Your task to perform on an android device: Search for desk lamps on article.com Image 0: 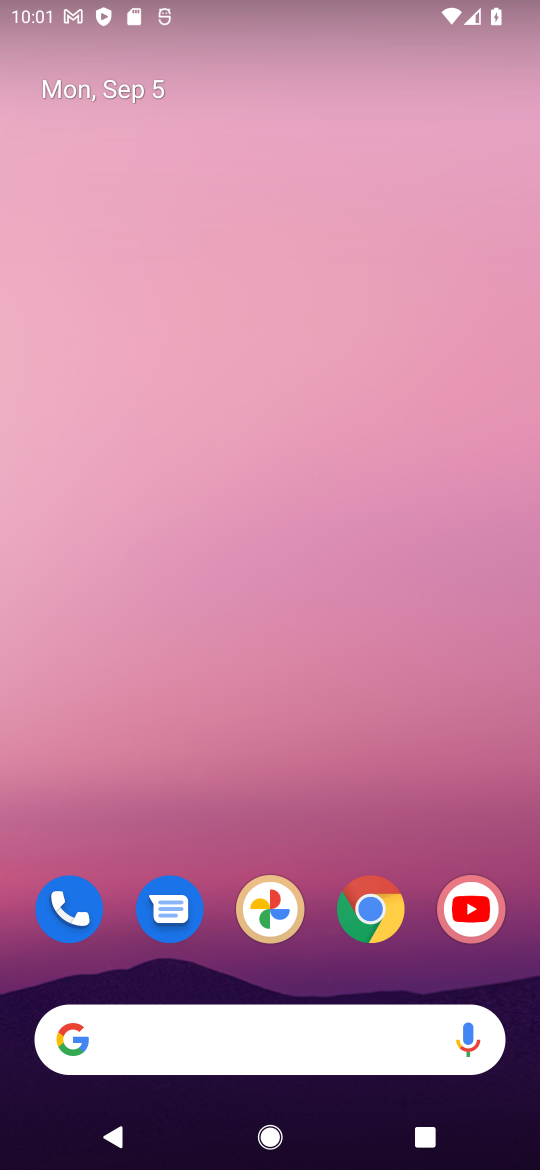
Step 0: click (380, 929)
Your task to perform on an android device: Search for desk lamps on article.com Image 1: 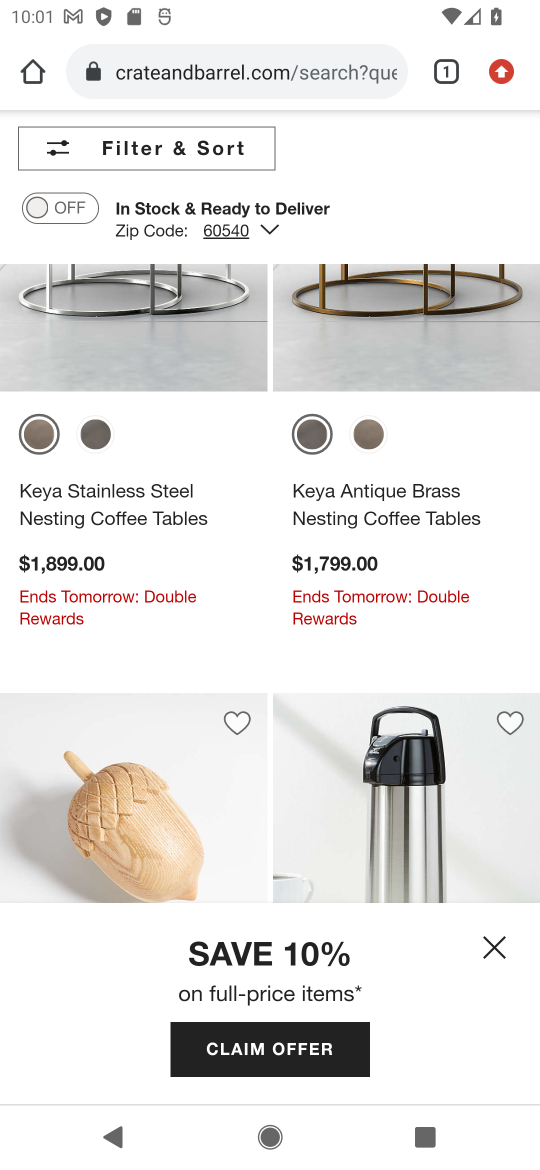
Step 1: click (269, 73)
Your task to perform on an android device: Search for desk lamps on article.com Image 2: 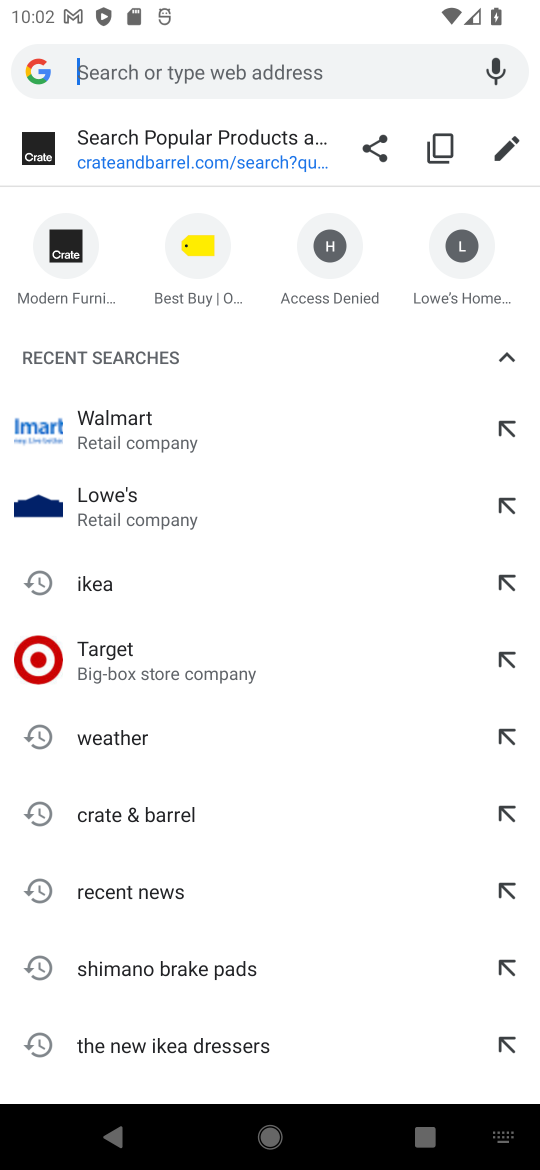
Step 2: type "article.com"
Your task to perform on an android device: Search for desk lamps on article.com Image 3: 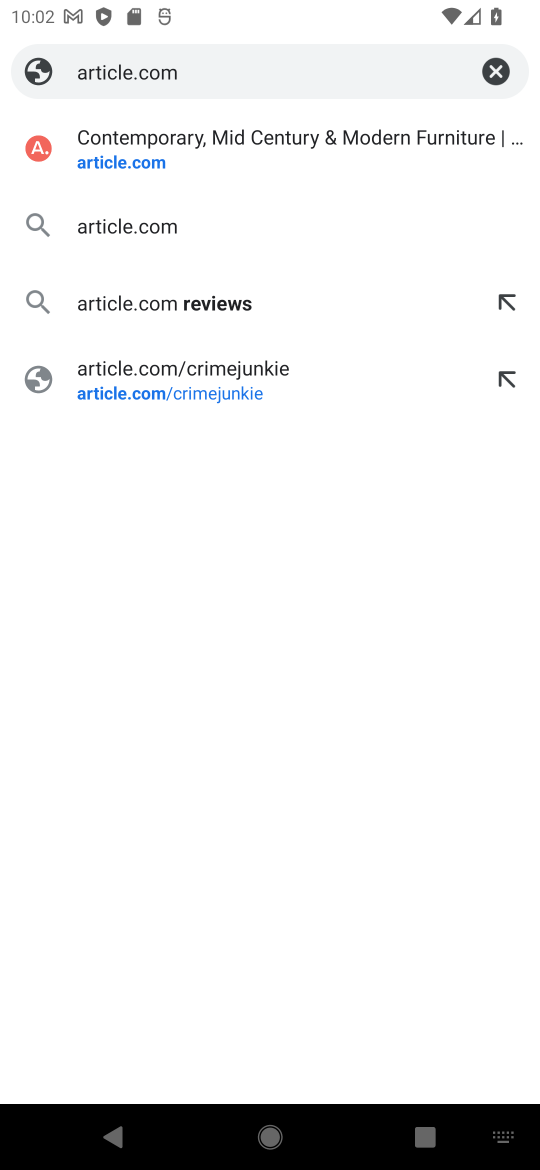
Step 3: click (312, 135)
Your task to perform on an android device: Search for desk lamps on article.com Image 4: 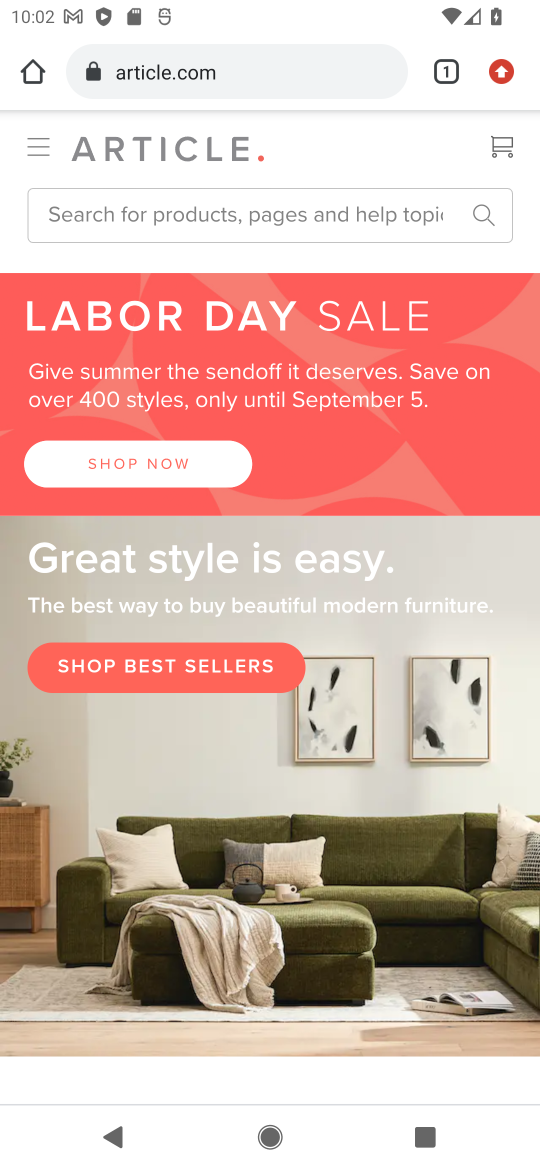
Step 4: click (285, 207)
Your task to perform on an android device: Search for desk lamps on article.com Image 5: 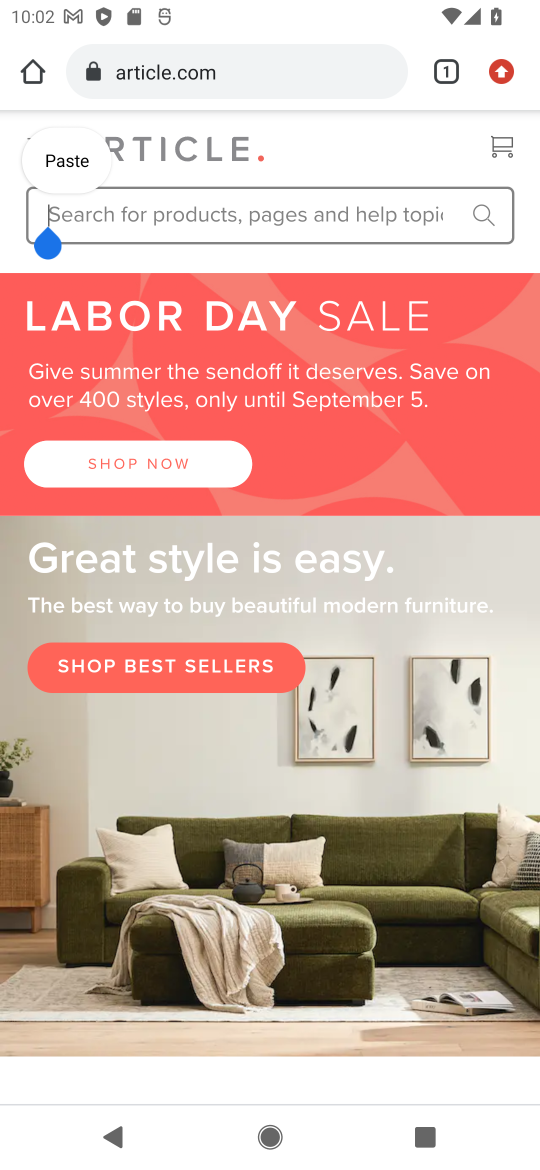
Step 5: click (160, 216)
Your task to perform on an android device: Search for desk lamps on article.com Image 6: 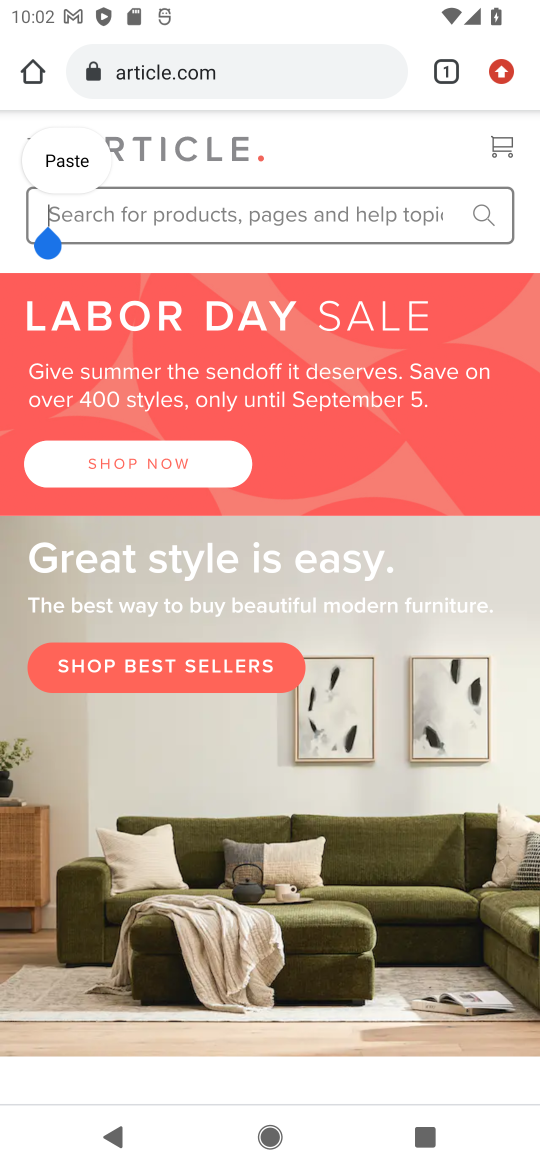
Step 6: type "desk lamps"
Your task to perform on an android device: Search for desk lamps on article.com Image 7: 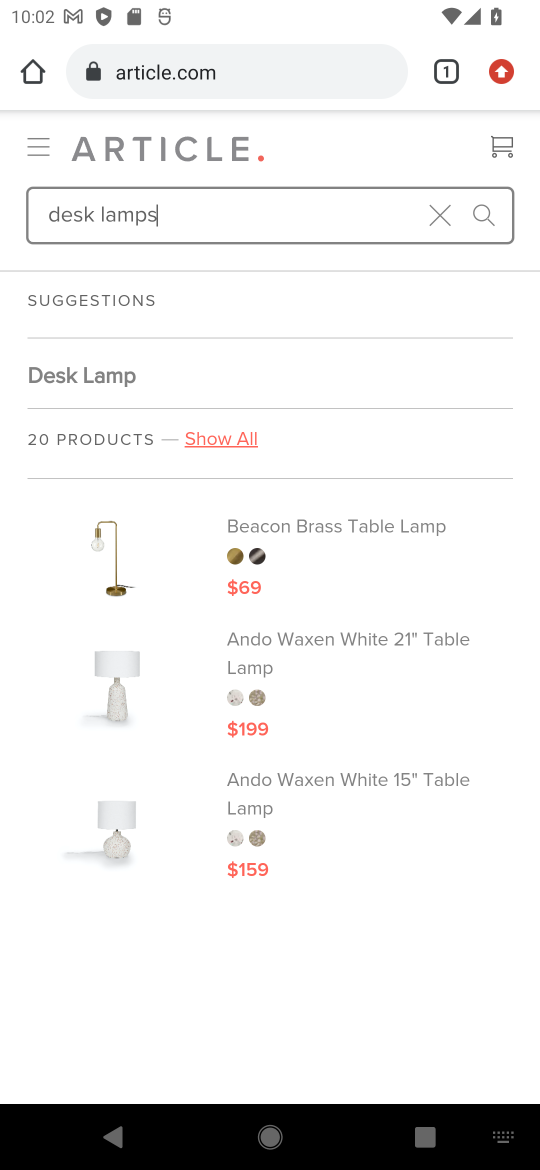
Step 7: click (493, 214)
Your task to perform on an android device: Search for desk lamps on article.com Image 8: 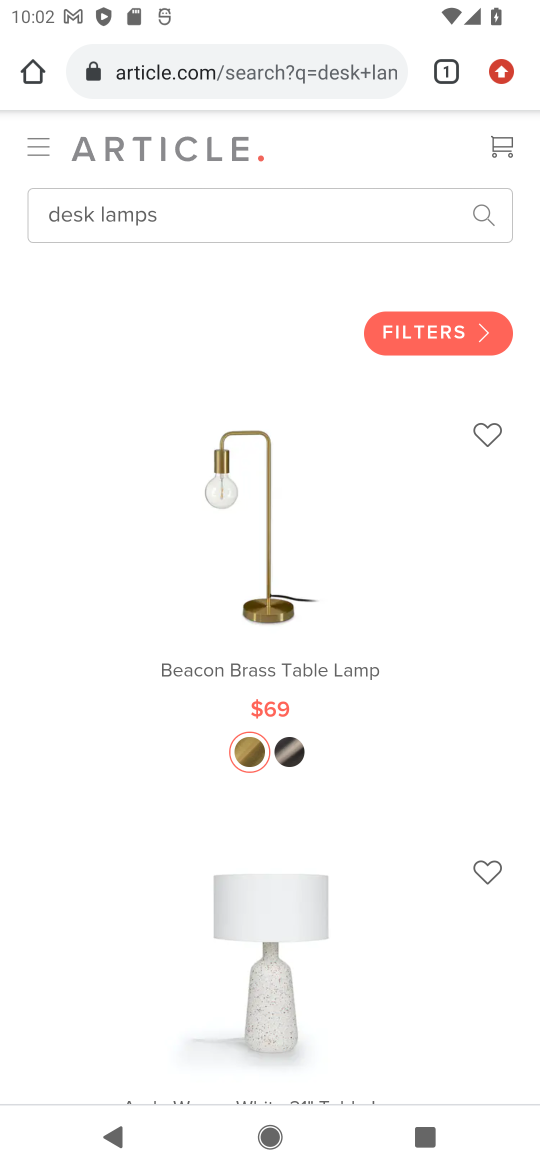
Step 8: task complete